Your task to perform on an android device: Add lg ultragear to the cart on newegg Image 0: 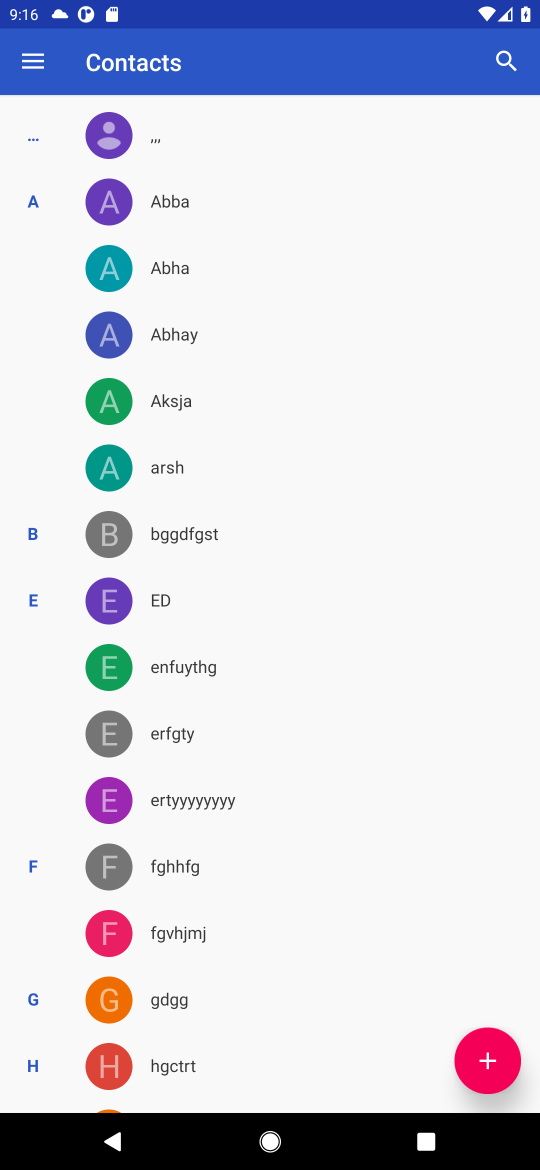
Step 0: press home button
Your task to perform on an android device: Add lg ultragear to the cart on newegg Image 1: 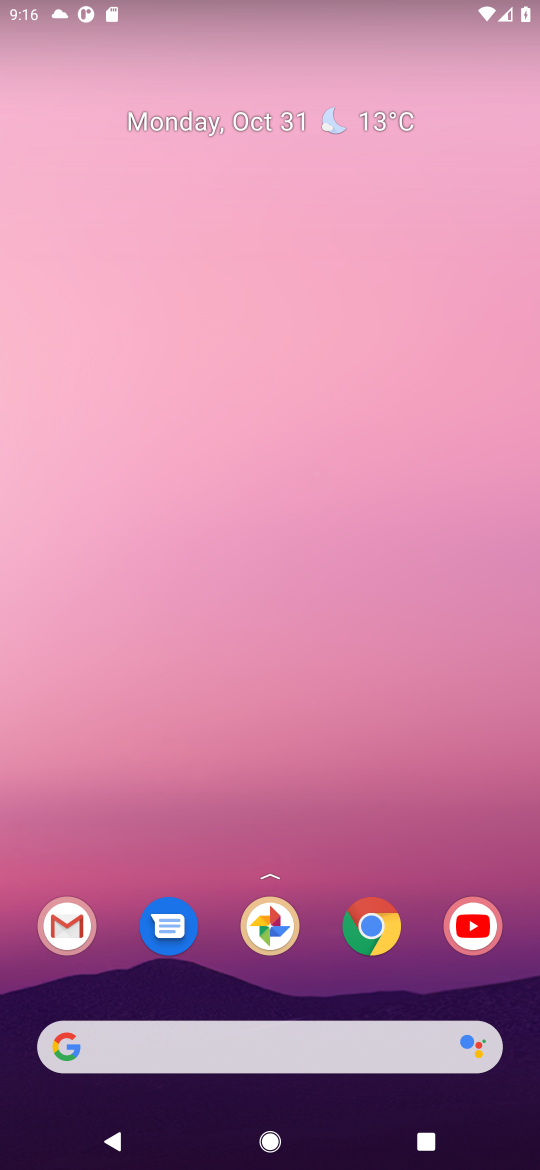
Step 1: click (370, 935)
Your task to perform on an android device: Add lg ultragear to the cart on newegg Image 2: 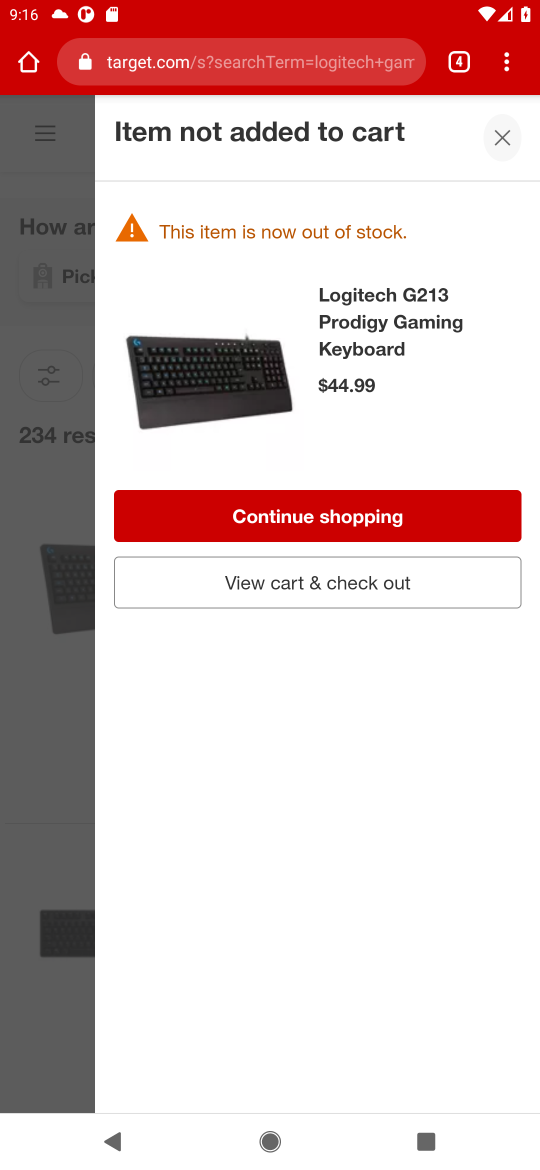
Step 2: click (455, 63)
Your task to perform on an android device: Add lg ultragear to the cart on newegg Image 3: 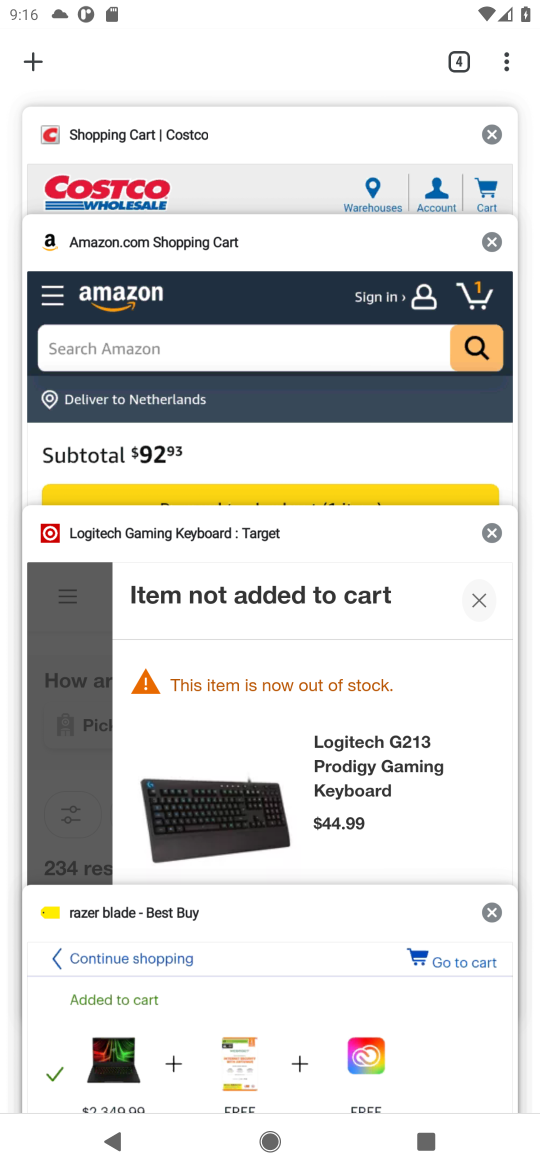
Step 3: click (34, 62)
Your task to perform on an android device: Add lg ultragear to the cart on newegg Image 4: 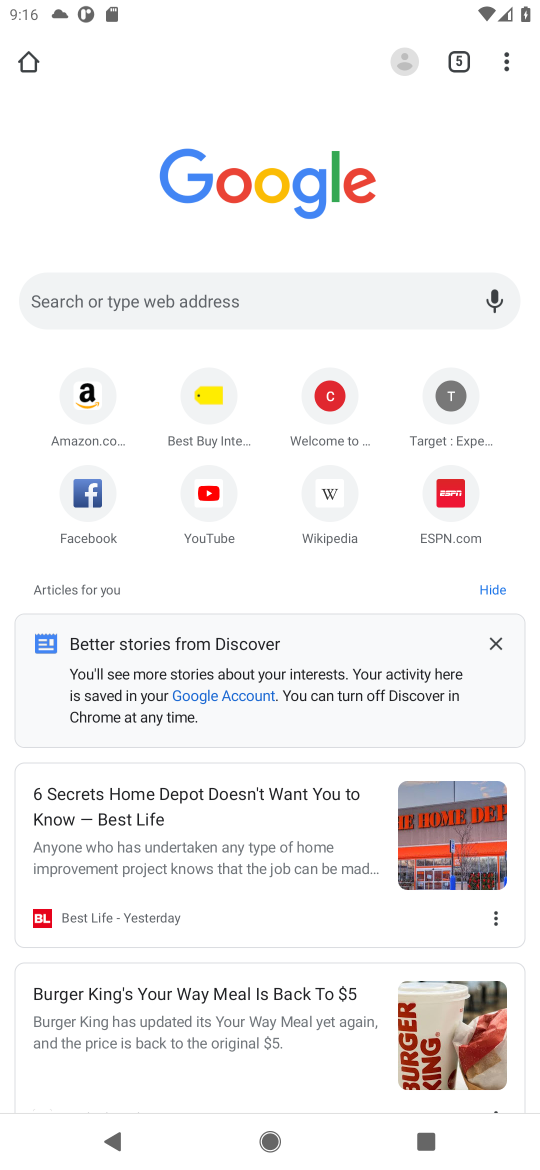
Step 4: click (221, 296)
Your task to perform on an android device: Add lg ultragear to the cart on newegg Image 5: 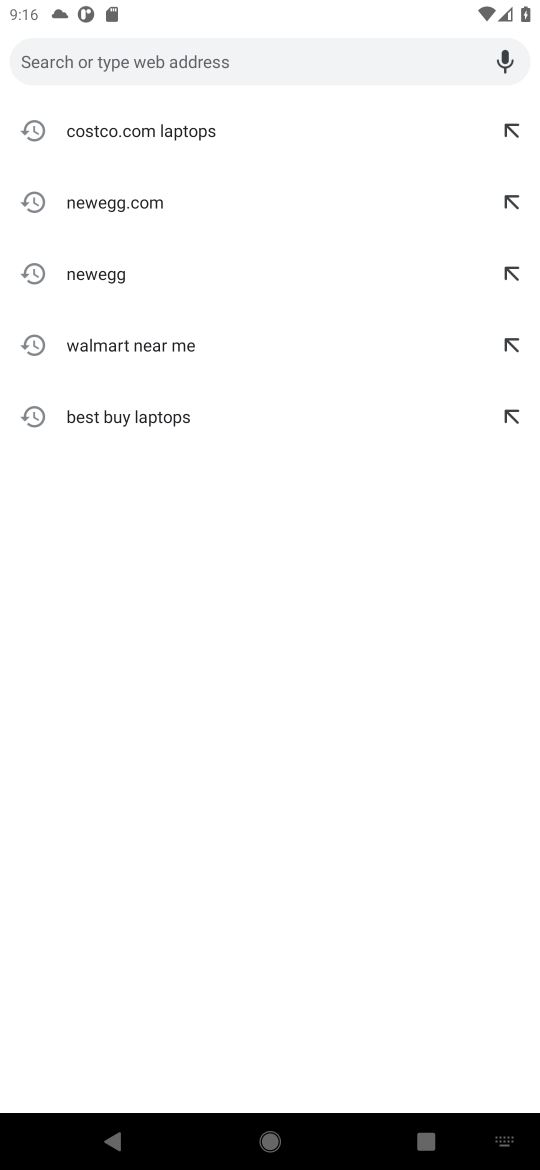
Step 5: type "newegg"
Your task to perform on an android device: Add lg ultragear to the cart on newegg Image 6: 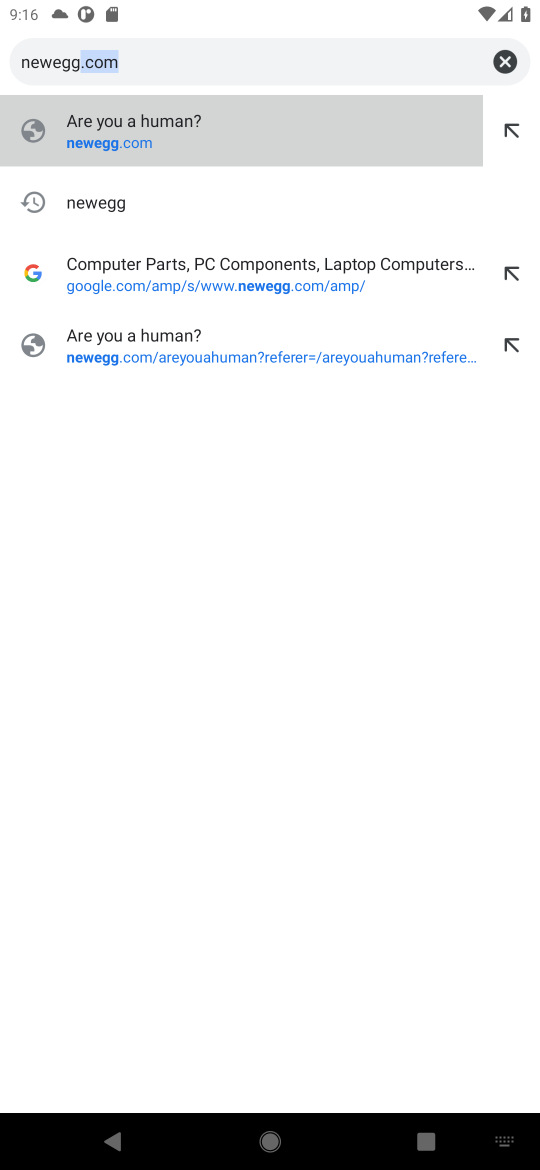
Step 6: click (110, 202)
Your task to perform on an android device: Add lg ultragear to the cart on newegg Image 7: 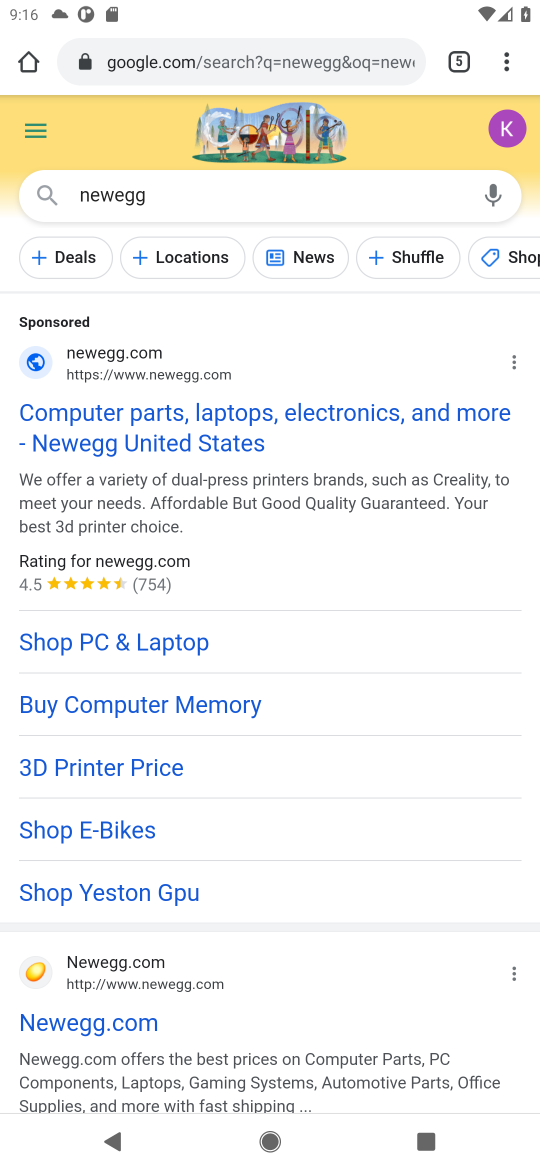
Step 7: click (87, 1022)
Your task to perform on an android device: Add lg ultragear to the cart on newegg Image 8: 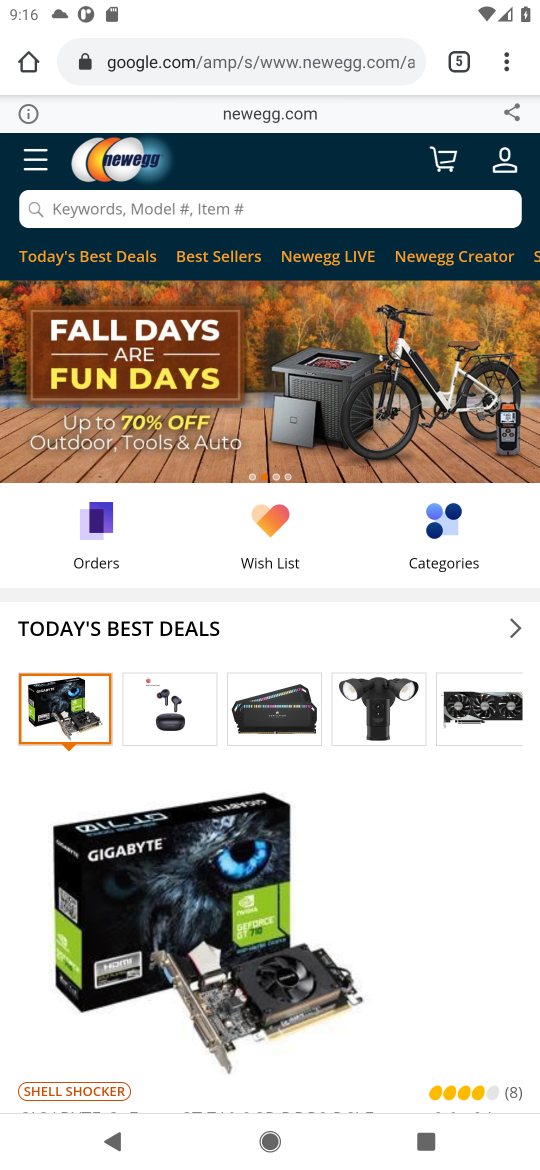
Step 8: click (263, 201)
Your task to perform on an android device: Add lg ultragear to the cart on newegg Image 9: 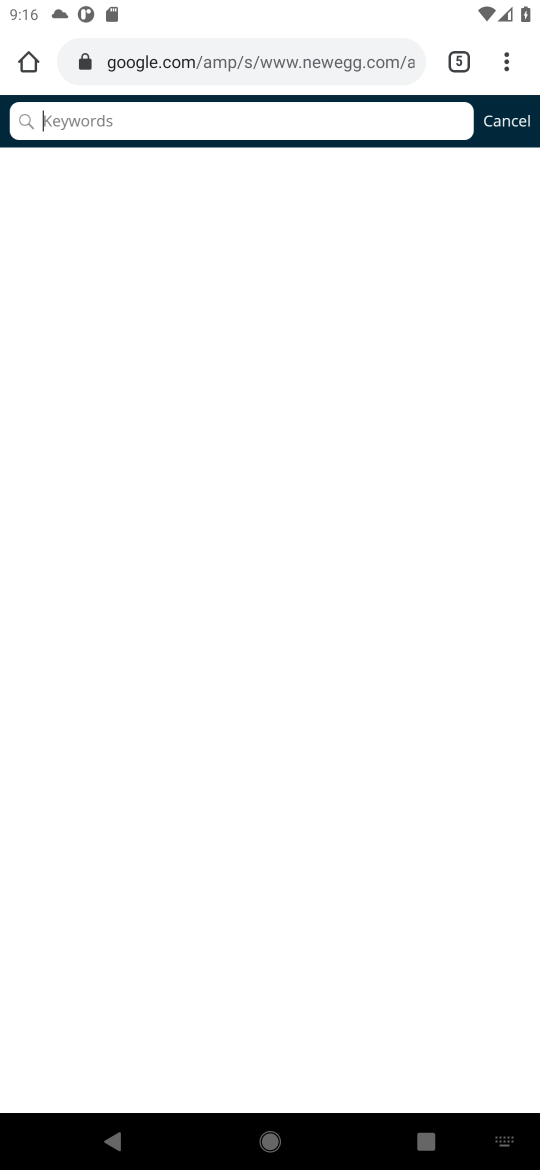
Step 9: type "lg ultragear"
Your task to perform on an android device: Add lg ultragear to the cart on newegg Image 10: 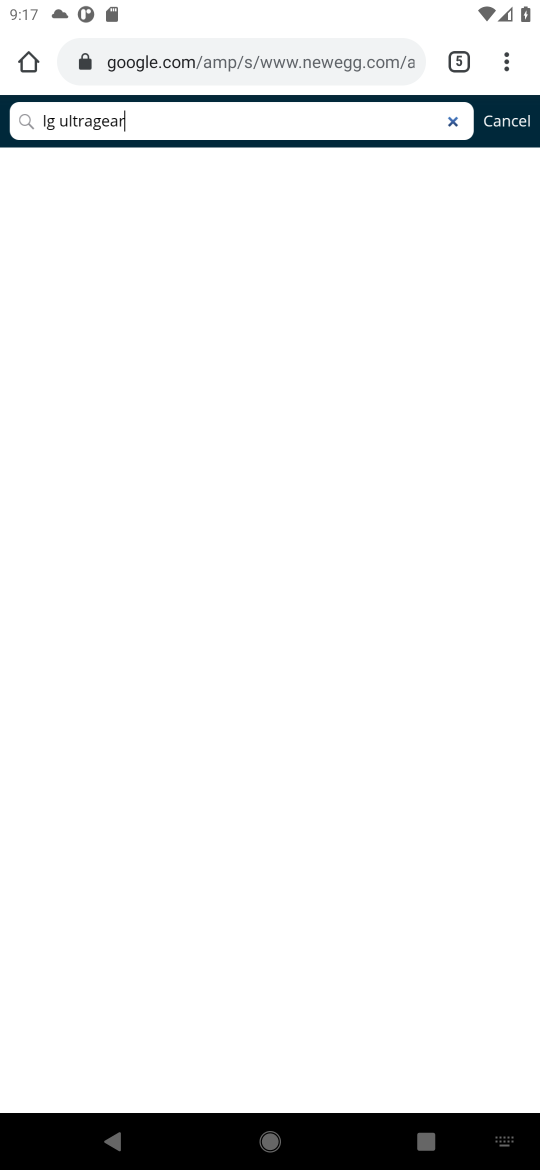
Step 10: task complete